Your task to perform on an android device: change notifications settings Image 0: 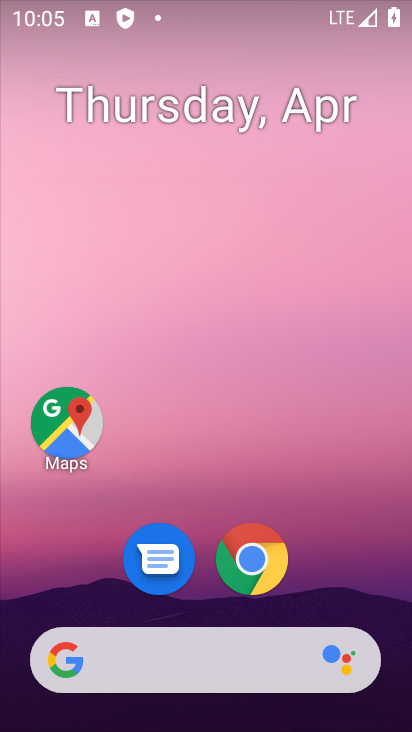
Step 0: drag from (217, 691) to (134, 112)
Your task to perform on an android device: change notifications settings Image 1: 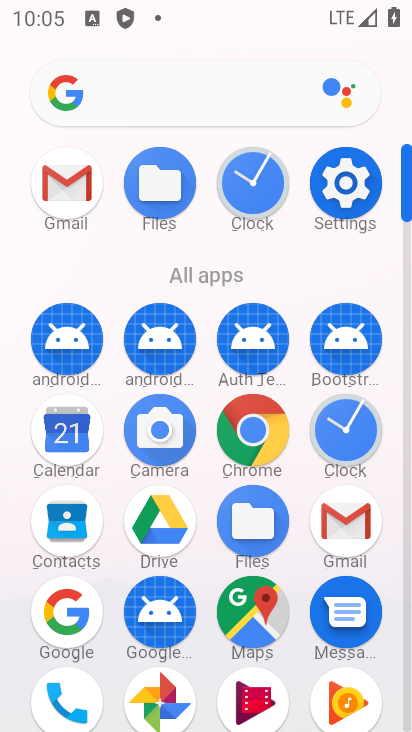
Step 1: click (354, 166)
Your task to perform on an android device: change notifications settings Image 2: 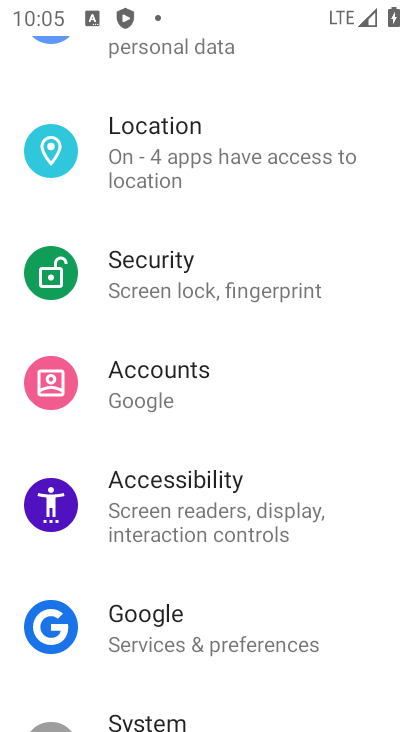
Step 2: drag from (281, 192) to (339, 647)
Your task to perform on an android device: change notifications settings Image 3: 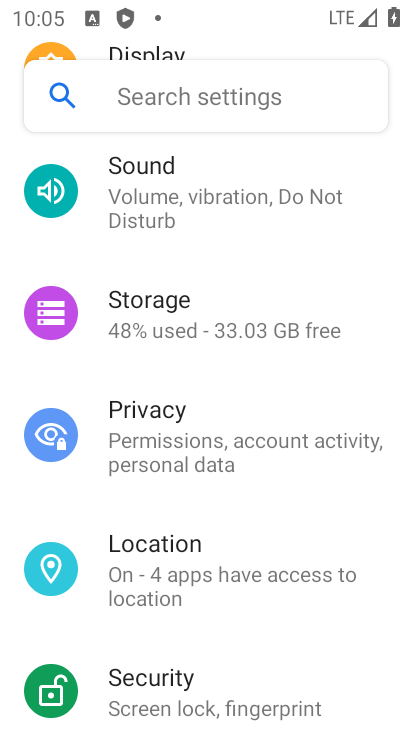
Step 3: drag from (318, 262) to (312, 650)
Your task to perform on an android device: change notifications settings Image 4: 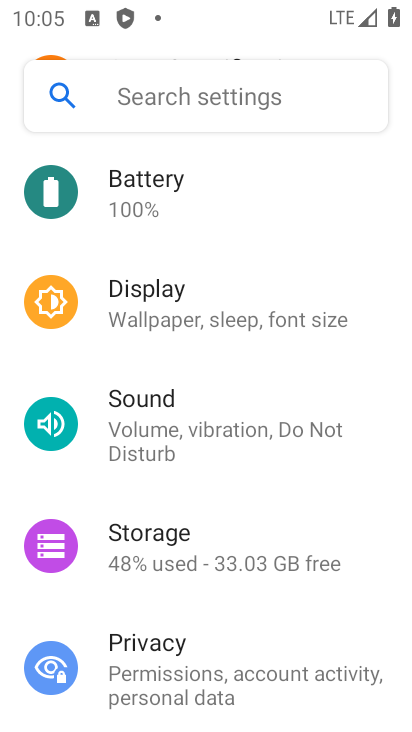
Step 4: drag from (336, 222) to (343, 686)
Your task to perform on an android device: change notifications settings Image 5: 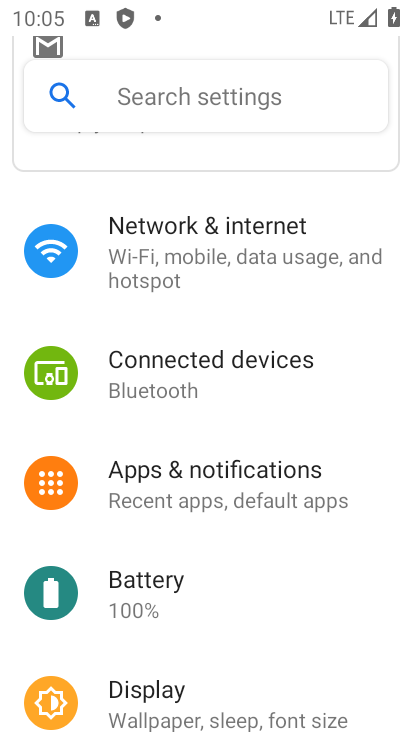
Step 5: click (313, 500)
Your task to perform on an android device: change notifications settings Image 6: 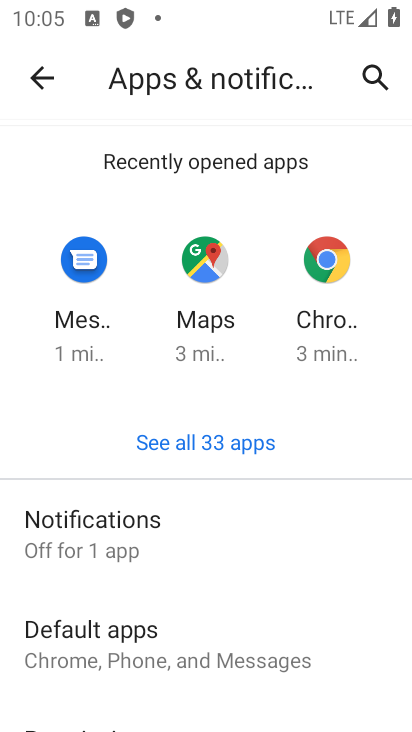
Step 6: drag from (287, 575) to (291, 80)
Your task to perform on an android device: change notifications settings Image 7: 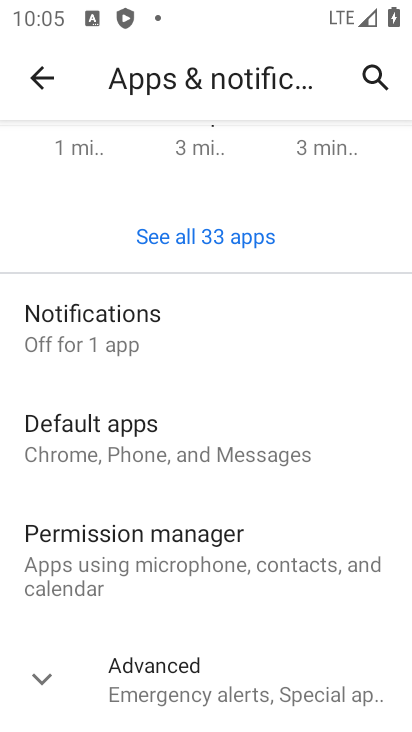
Step 7: click (243, 335)
Your task to perform on an android device: change notifications settings Image 8: 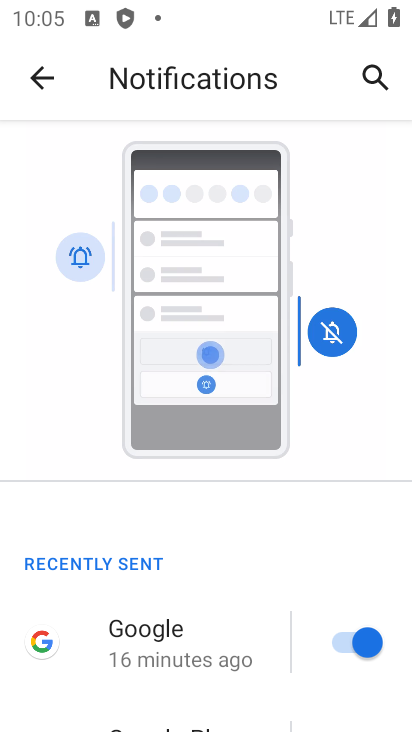
Step 8: click (359, 644)
Your task to perform on an android device: change notifications settings Image 9: 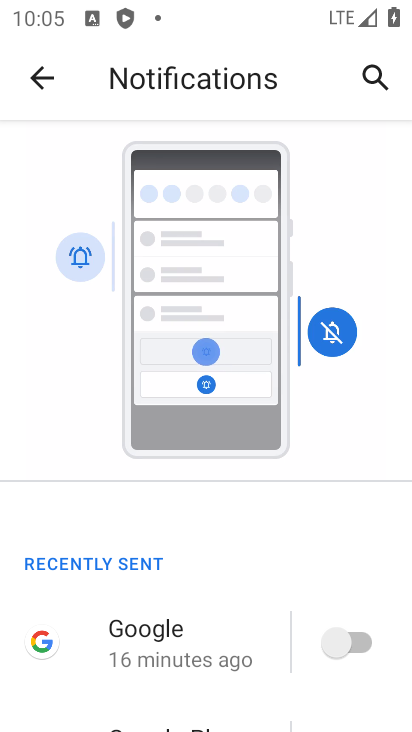
Step 9: task complete